Your task to perform on an android device: toggle improve location accuracy Image 0: 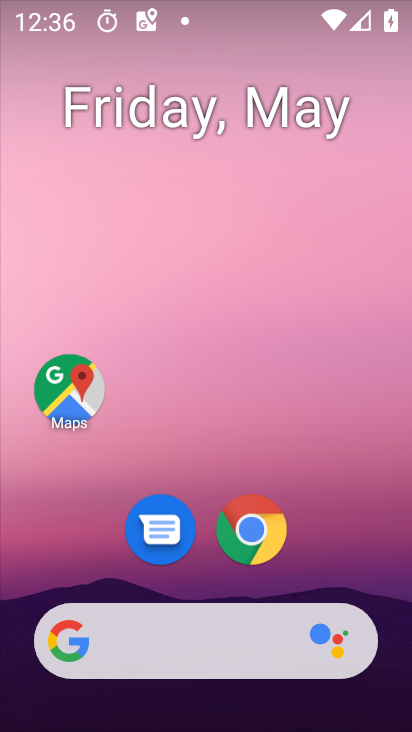
Step 0: drag from (203, 561) to (217, 180)
Your task to perform on an android device: toggle improve location accuracy Image 1: 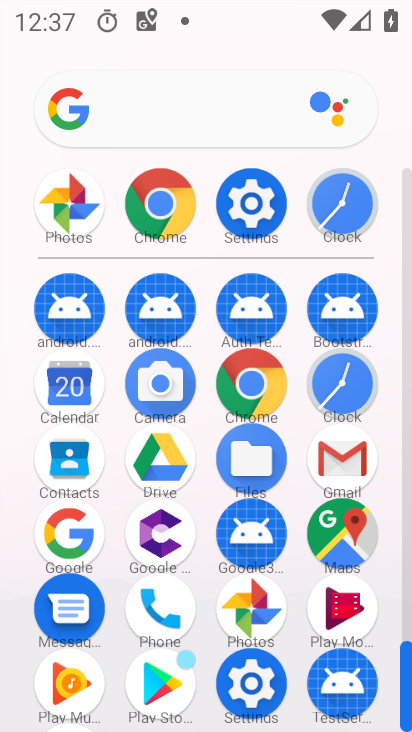
Step 1: click (258, 226)
Your task to perform on an android device: toggle improve location accuracy Image 2: 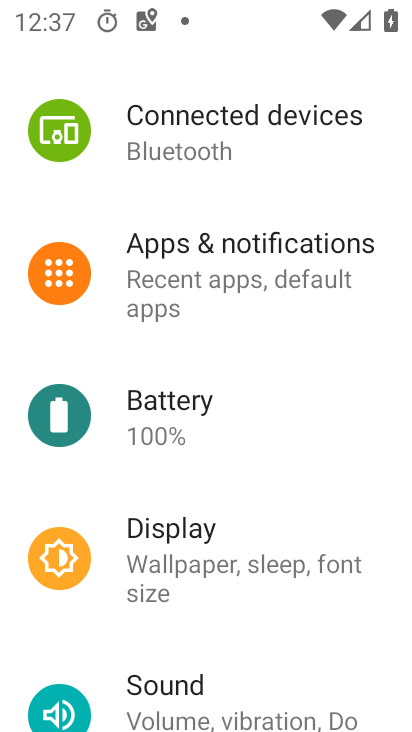
Step 2: drag from (155, 648) to (165, 262)
Your task to perform on an android device: toggle improve location accuracy Image 3: 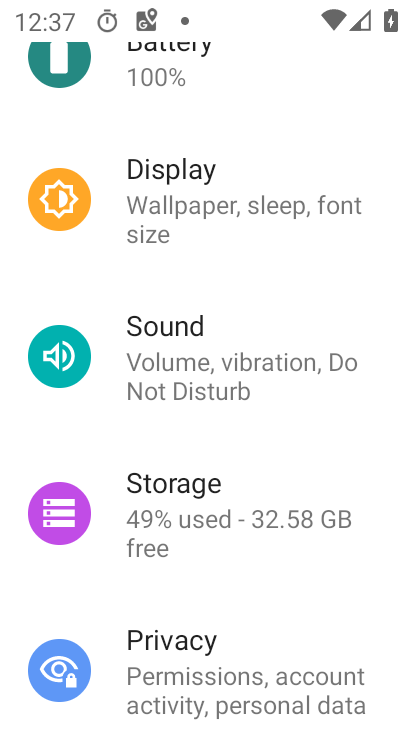
Step 3: drag from (189, 407) to (231, 200)
Your task to perform on an android device: toggle improve location accuracy Image 4: 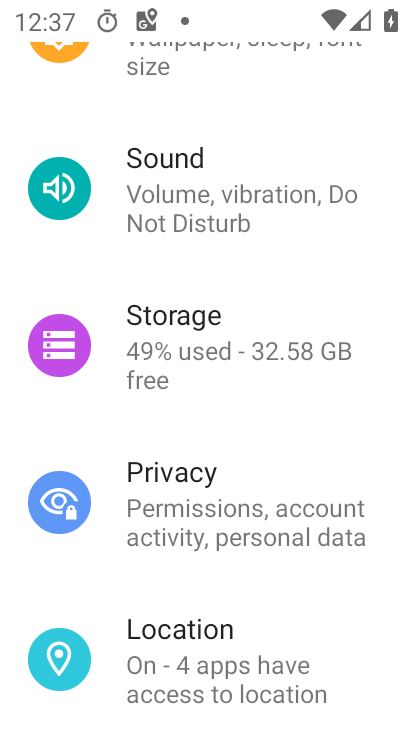
Step 4: click (212, 643)
Your task to perform on an android device: toggle improve location accuracy Image 5: 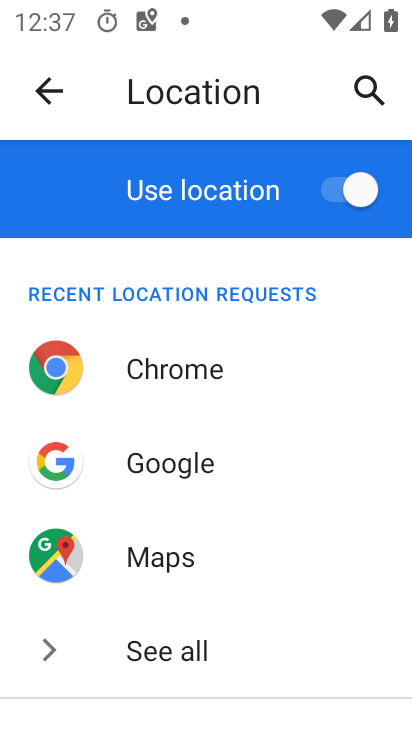
Step 5: drag from (142, 582) to (163, 347)
Your task to perform on an android device: toggle improve location accuracy Image 6: 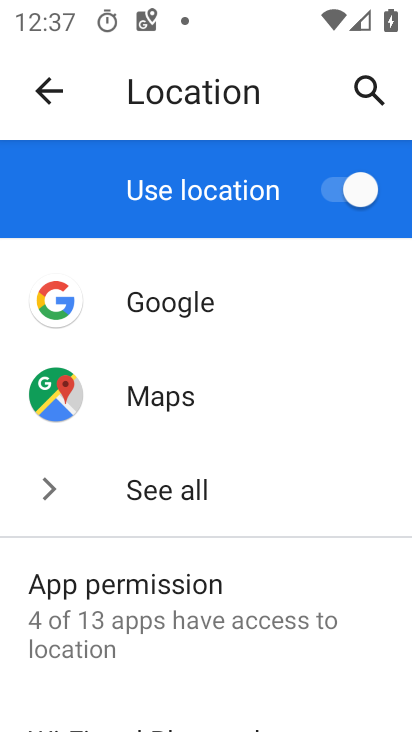
Step 6: drag from (178, 556) to (234, 153)
Your task to perform on an android device: toggle improve location accuracy Image 7: 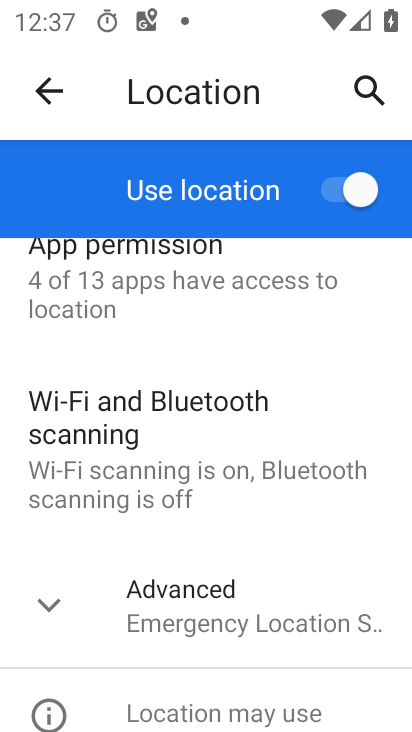
Step 7: click (210, 617)
Your task to perform on an android device: toggle improve location accuracy Image 8: 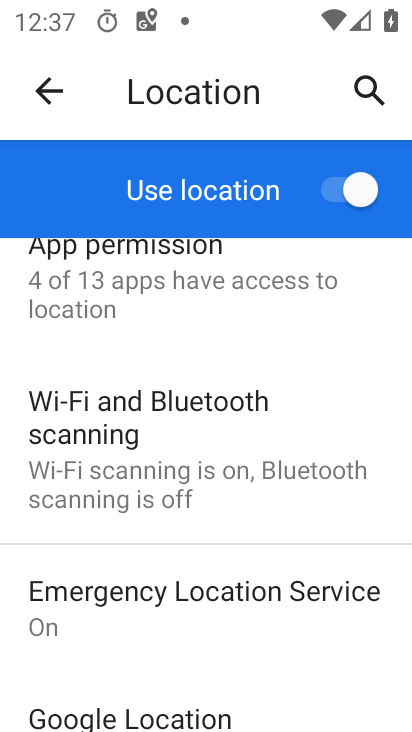
Step 8: drag from (254, 365) to (278, 94)
Your task to perform on an android device: toggle improve location accuracy Image 9: 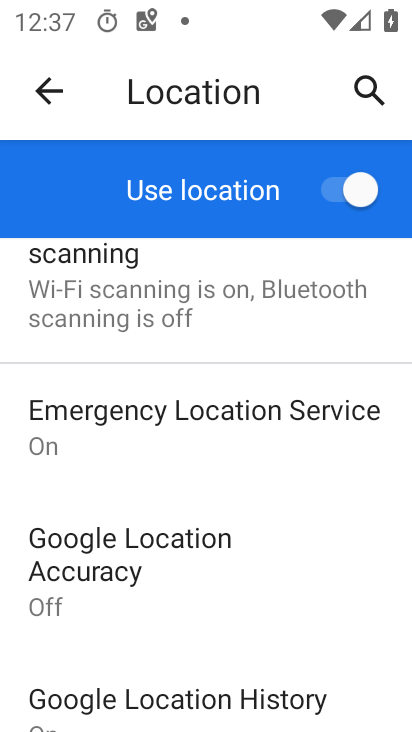
Step 9: click (198, 557)
Your task to perform on an android device: toggle improve location accuracy Image 10: 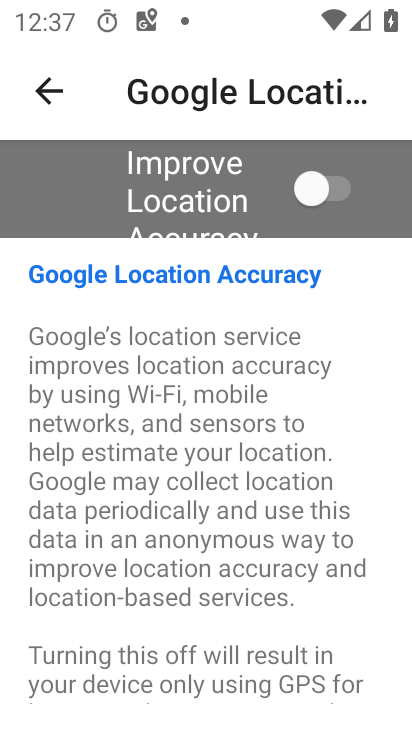
Step 10: click (330, 192)
Your task to perform on an android device: toggle improve location accuracy Image 11: 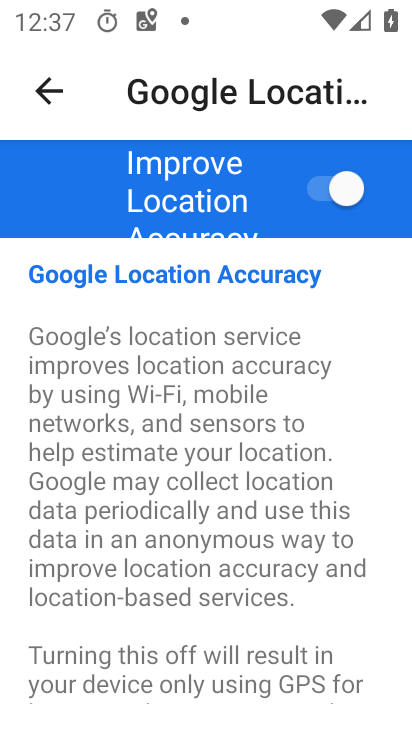
Step 11: task complete